Your task to perform on an android device: Open settings Image 0: 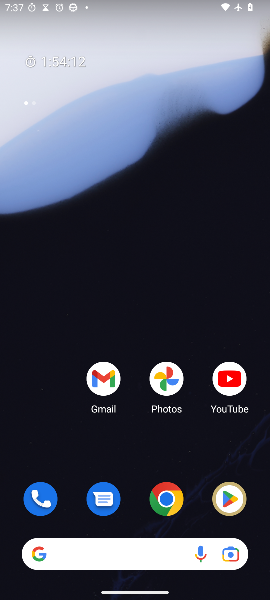
Step 0: drag from (153, 497) to (146, 71)
Your task to perform on an android device: Open settings Image 1: 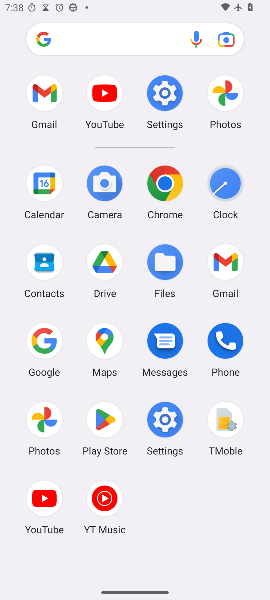
Step 1: click (168, 103)
Your task to perform on an android device: Open settings Image 2: 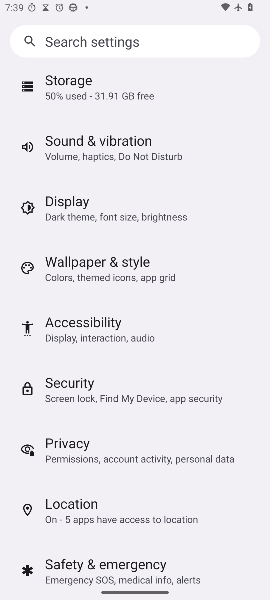
Step 2: drag from (137, 224) to (193, 538)
Your task to perform on an android device: Open settings Image 3: 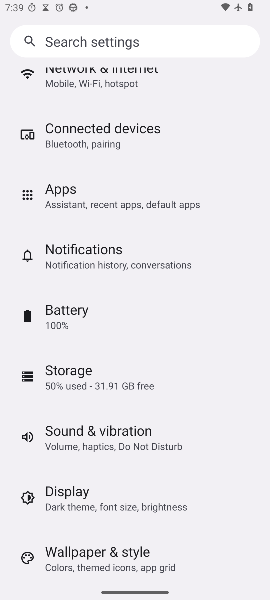
Step 3: drag from (193, 388) to (218, 490)
Your task to perform on an android device: Open settings Image 4: 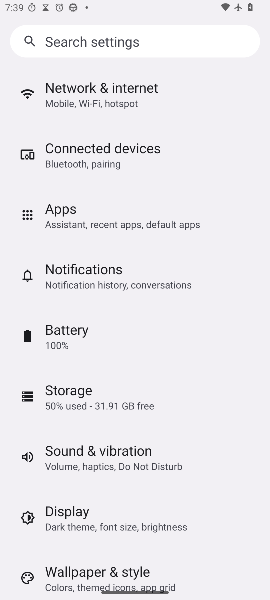
Step 4: drag from (158, 148) to (208, 467)
Your task to perform on an android device: Open settings Image 5: 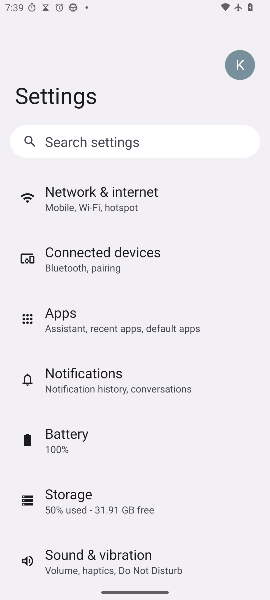
Step 5: drag from (176, 446) to (175, 183)
Your task to perform on an android device: Open settings Image 6: 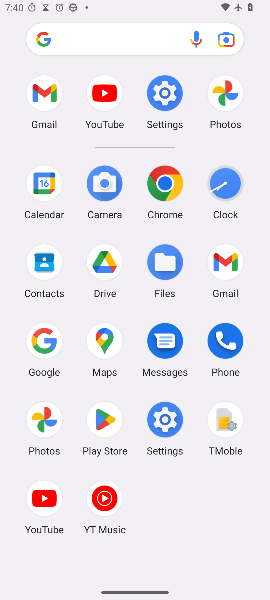
Step 6: click (160, 93)
Your task to perform on an android device: Open settings Image 7: 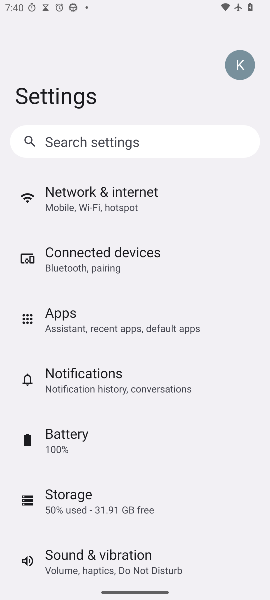
Step 7: task complete